Your task to perform on an android device: turn off airplane mode Image 0: 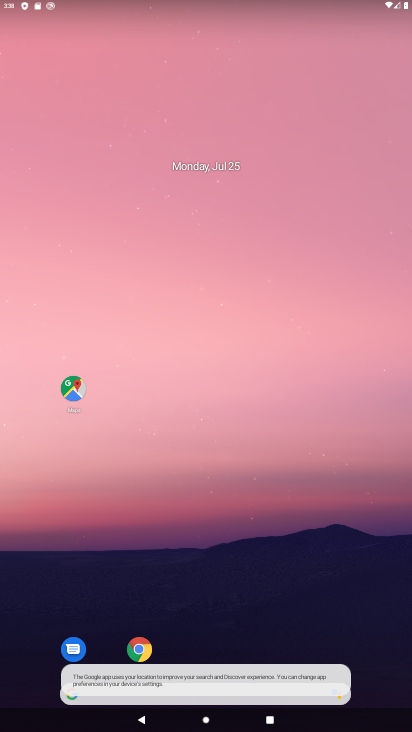
Step 0: drag from (230, 614) to (188, 69)
Your task to perform on an android device: turn off airplane mode Image 1: 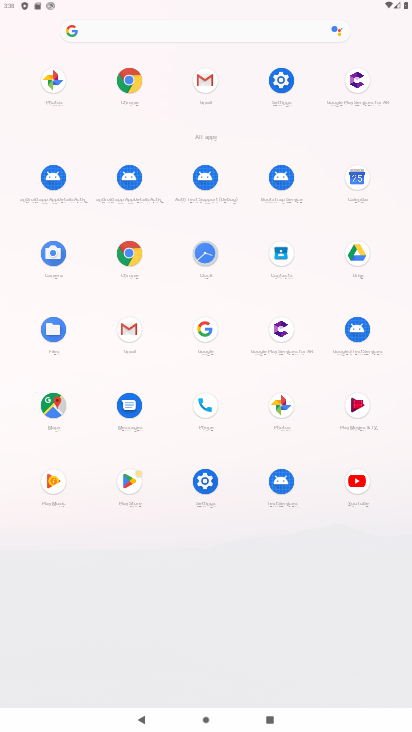
Step 1: click (292, 94)
Your task to perform on an android device: turn off airplane mode Image 2: 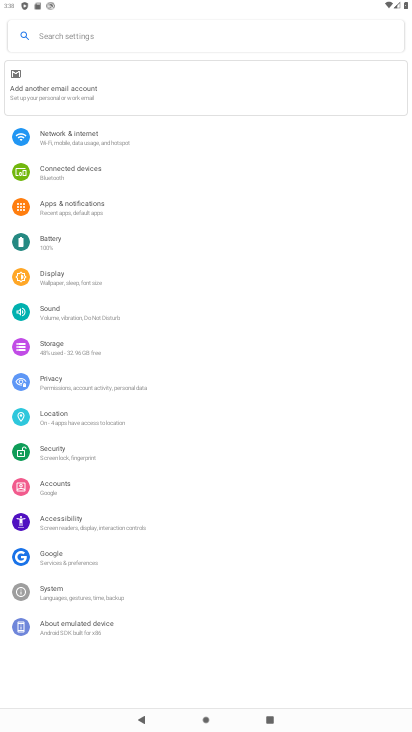
Step 2: click (123, 142)
Your task to perform on an android device: turn off airplane mode Image 3: 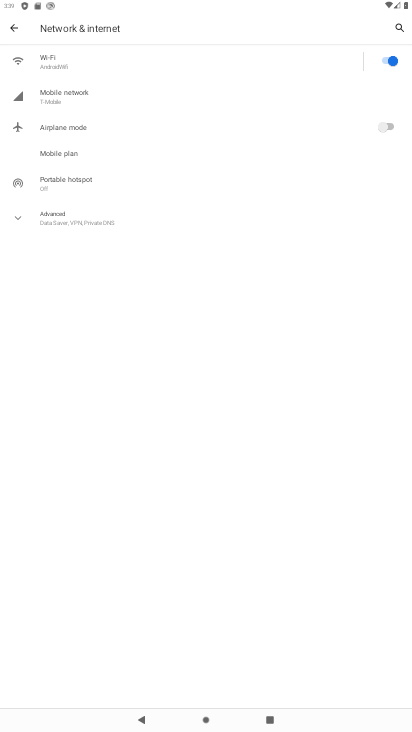
Step 3: task complete